Your task to perform on an android device: Search for "razer blade" on ebay, select the first entry, add it to the cart, then select checkout. Image 0: 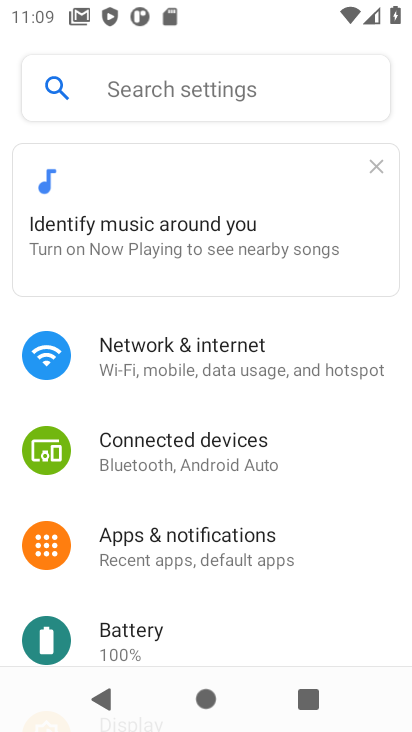
Step 0: press home button
Your task to perform on an android device: Search for "razer blade" on ebay, select the first entry, add it to the cart, then select checkout. Image 1: 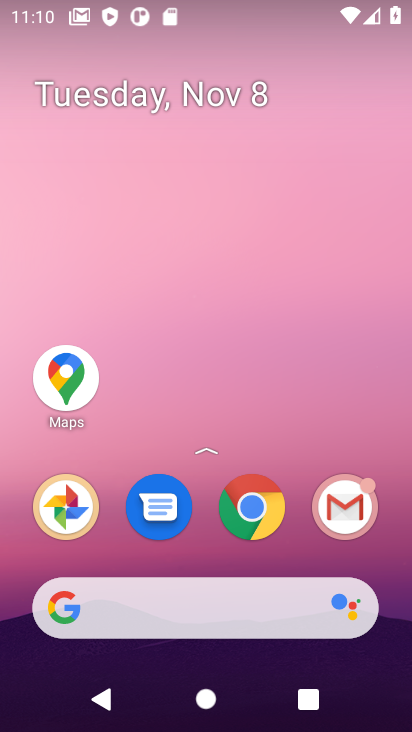
Step 1: click (254, 506)
Your task to perform on an android device: Search for "razer blade" on ebay, select the first entry, add it to the cart, then select checkout. Image 2: 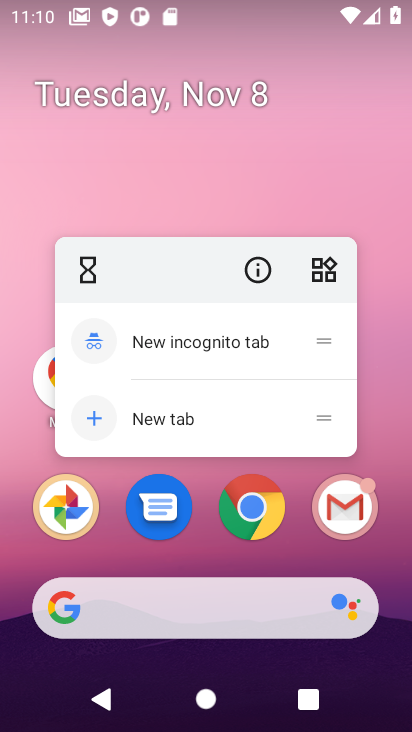
Step 2: click (250, 510)
Your task to perform on an android device: Search for "razer blade" on ebay, select the first entry, add it to the cart, then select checkout. Image 3: 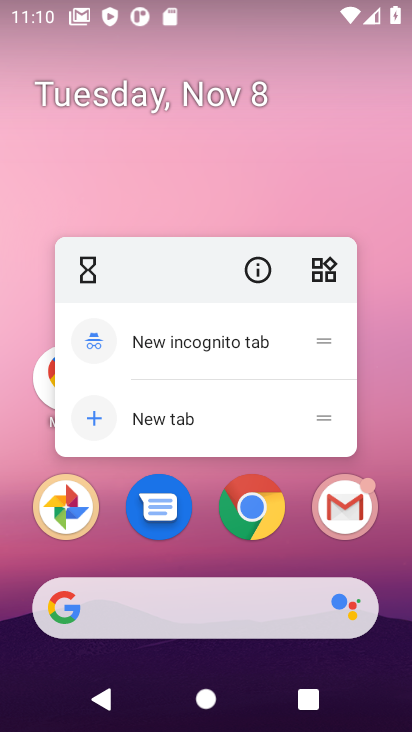
Step 3: click (250, 512)
Your task to perform on an android device: Search for "razer blade" on ebay, select the first entry, add it to the cart, then select checkout. Image 4: 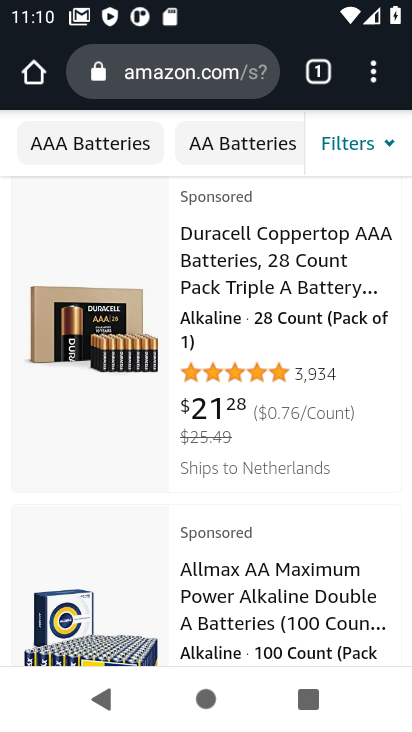
Step 4: click (217, 63)
Your task to perform on an android device: Search for "razer blade" on ebay, select the first entry, add it to the cart, then select checkout. Image 5: 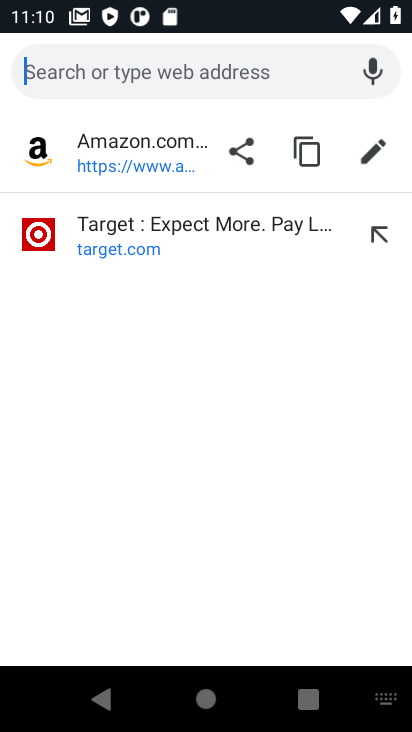
Step 5: type "ebay"
Your task to perform on an android device: Search for "razer blade" on ebay, select the first entry, add it to the cart, then select checkout. Image 6: 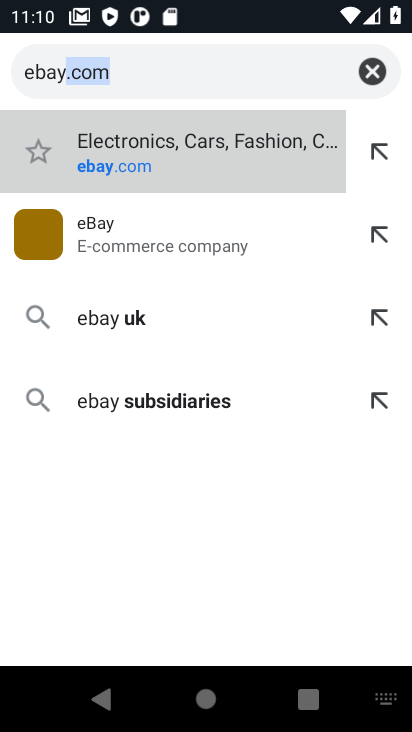
Step 6: press enter
Your task to perform on an android device: Search for "razer blade" on ebay, select the first entry, add it to the cart, then select checkout. Image 7: 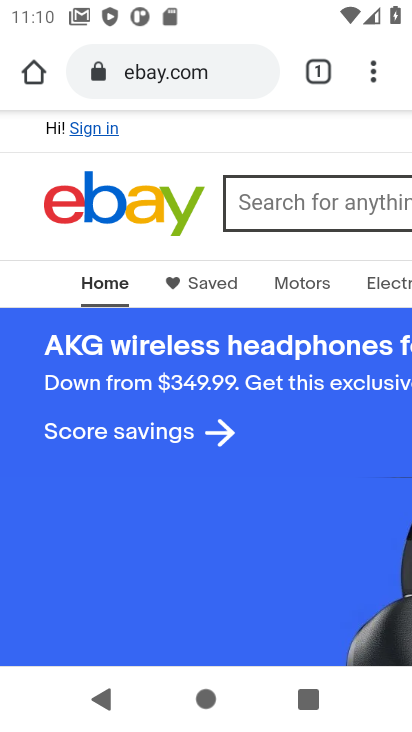
Step 7: drag from (282, 239) to (345, 96)
Your task to perform on an android device: Search for "razer blade" on ebay, select the first entry, add it to the cart, then select checkout. Image 8: 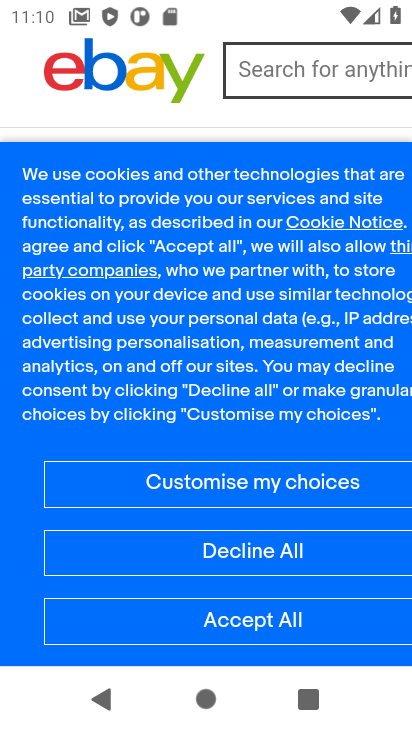
Step 8: click (282, 628)
Your task to perform on an android device: Search for "razer blade" on ebay, select the first entry, add it to the cart, then select checkout. Image 9: 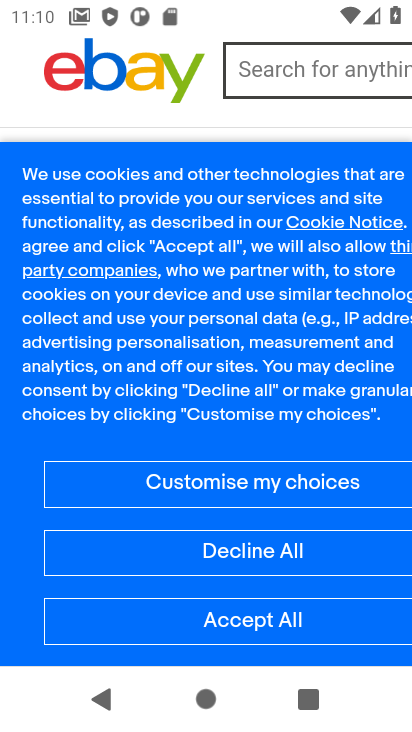
Step 9: click (363, 69)
Your task to perform on an android device: Search for "razer blade" on ebay, select the first entry, add it to the cart, then select checkout. Image 10: 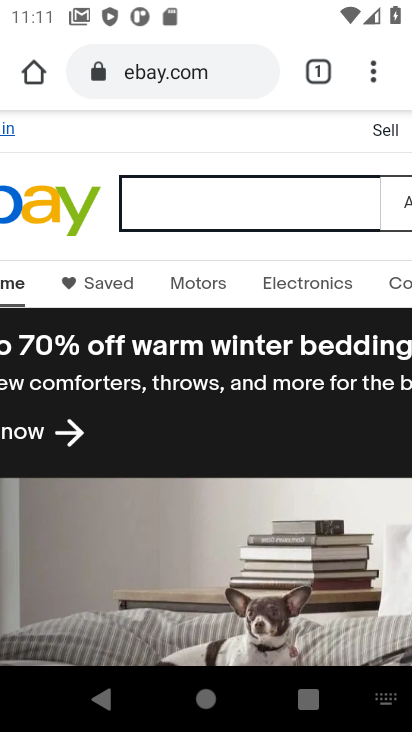
Step 10: click (217, 193)
Your task to perform on an android device: Search for "razer blade" on ebay, select the first entry, add it to the cart, then select checkout. Image 11: 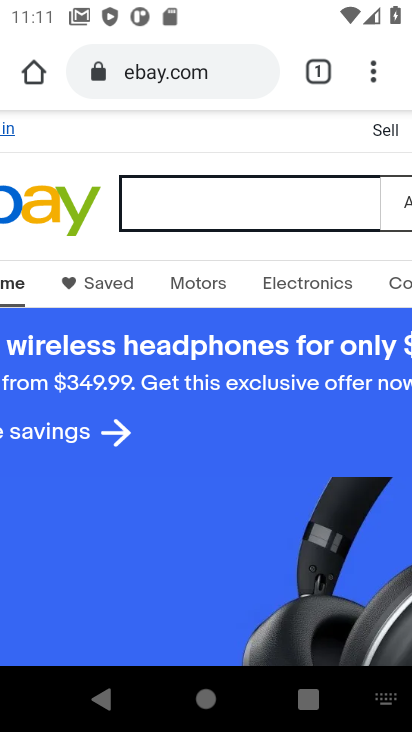
Step 11: type "razer blade"
Your task to perform on an android device: Search for "razer blade" on ebay, select the first entry, add it to the cart, then select checkout. Image 12: 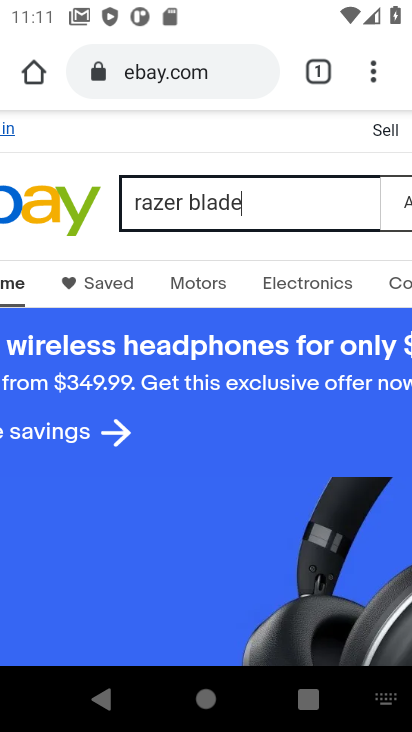
Step 12: press enter
Your task to perform on an android device: Search for "razer blade" on ebay, select the first entry, add it to the cart, then select checkout. Image 13: 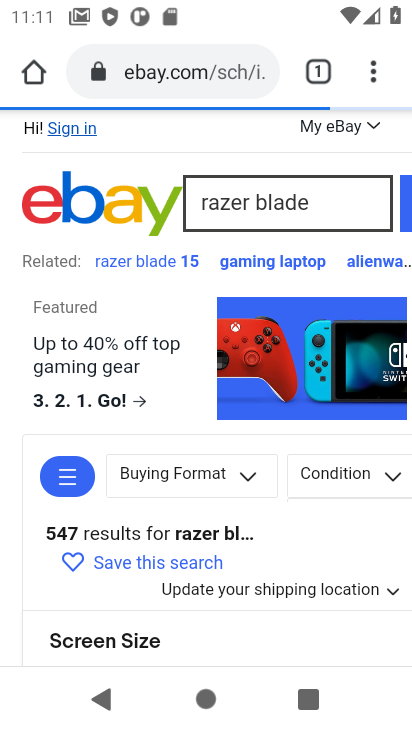
Step 13: drag from (224, 623) to (345, 237)
Your task to perform on an android device: Search for "razer blade" on ebay, select the first entry, add it to the cart, then select checkout. Image 14: 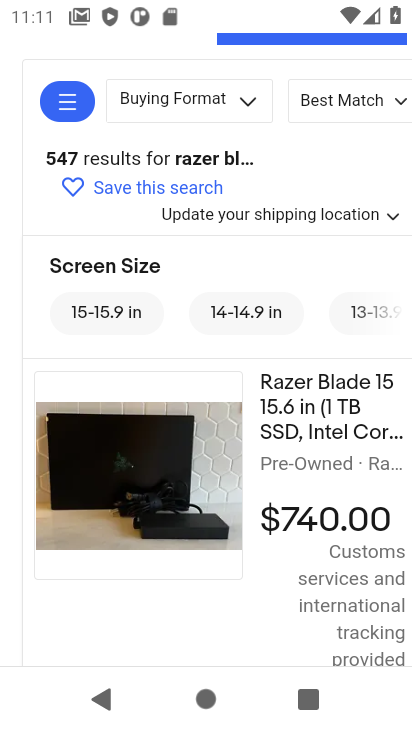
Step 14: click (269, 419)
Your task to perform on an android device: Search for "razer blade" on ebay, select the first entry, add it to the cart, then select checkout. Image 15: 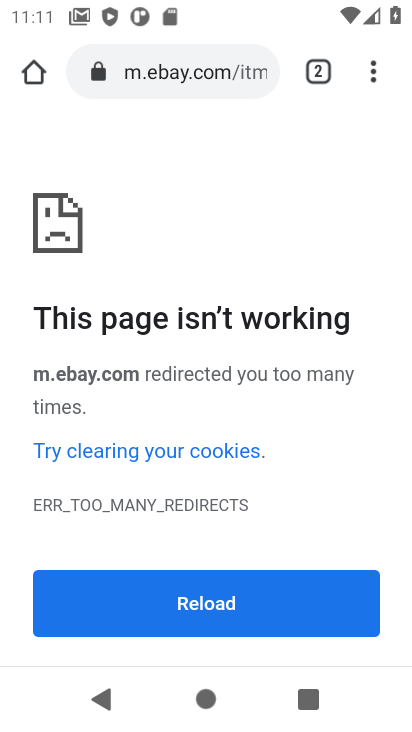
Step 15: click (201, 609)
Your task to perform on an android device: Search for "razer blade" on ebay, select the first entry, add it to the cart, then select checkout. Image 16: 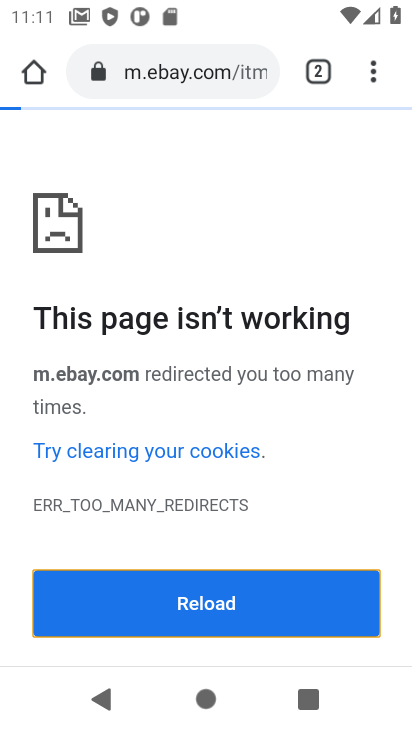
Step 16: click (202, 599)
Your task to perform on an android device: Search for "razer blade" on ebay, select the first entry, add it to the cart, then select checkout. Image 17: 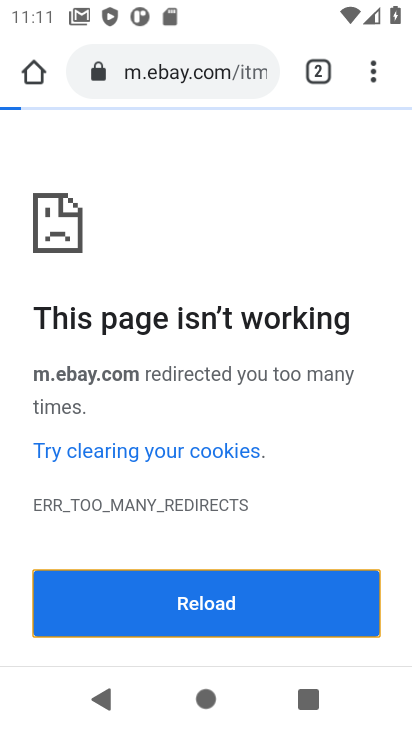
Step 17: task complete